Your task to perform on an android device: Search for seafood restaurants on Google Maps Image 0: 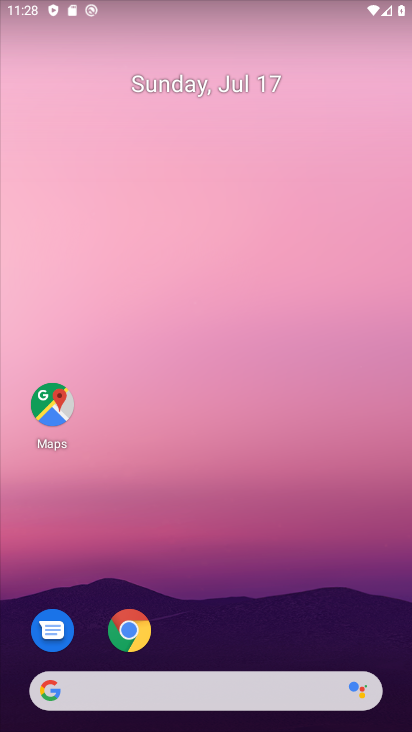
Step 0: click (24, 412)
Your task to perform on an android device: Search for seafood restaurants on Google Maps Image 1: 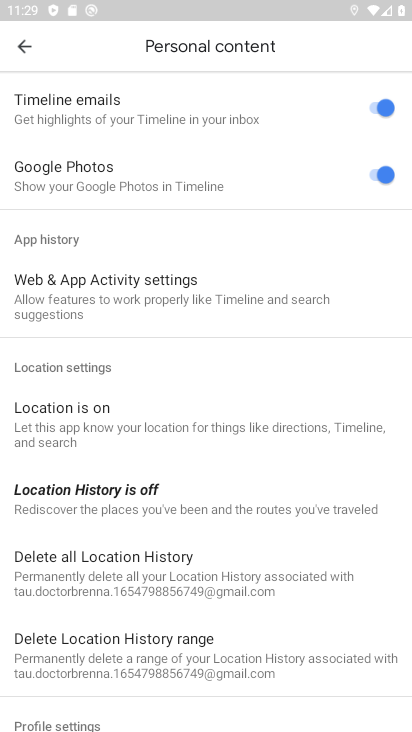
Step 1: click (21, 55)
Your task to perform on an android device: Search for seafood restaurants on Google Maps Image 2: 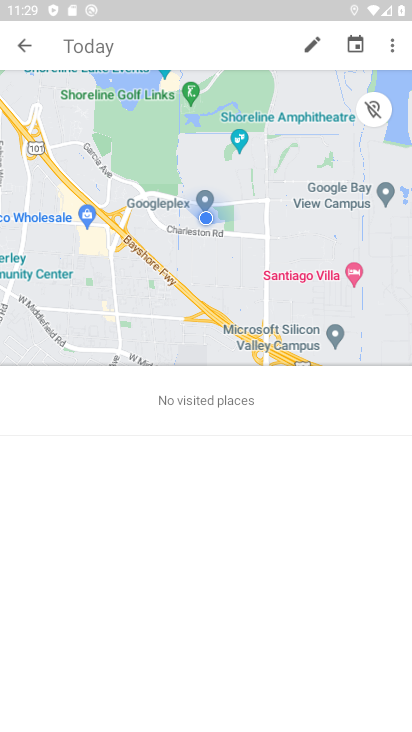
Step 2: click (30, 52)
Your task to perform on an android device: Search for seafood restaurants on Google Maps Image 3: 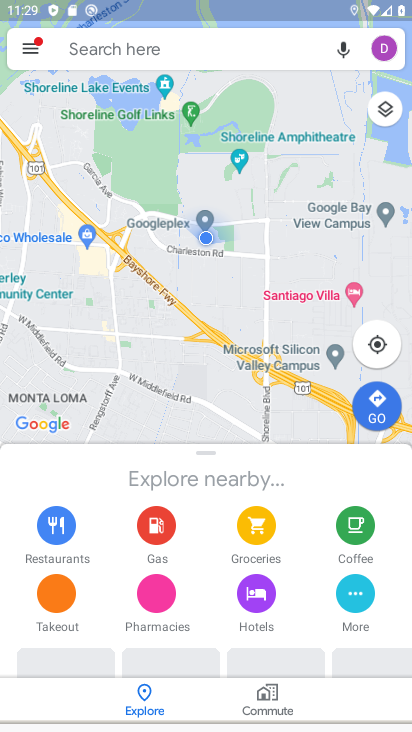
Step 3: click (151, 47)
Your task to perform on an android device: Search for seafood restaurants on Google Maps Image 4: 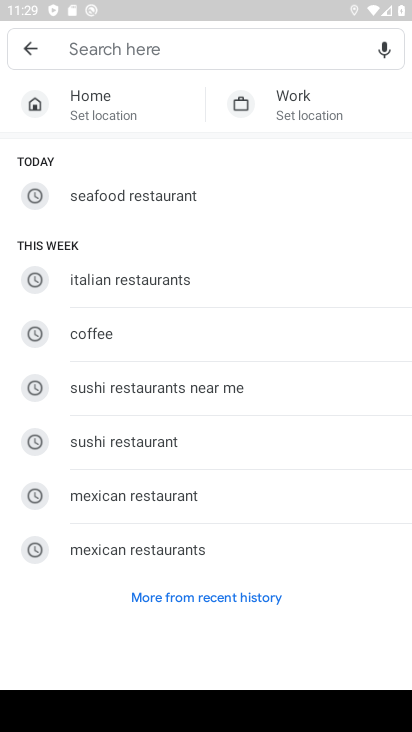
Step 4: type "seafood restaurants"
Your task to perform on an android device: Search for seafood restaurants on Google Maps Image 5: 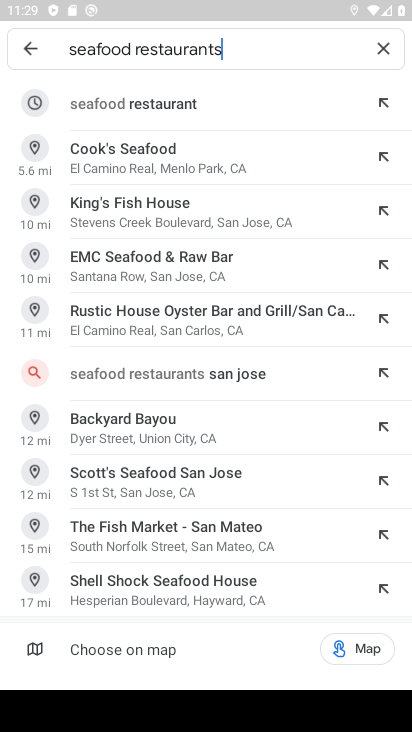
Step 5: click (184, 108)
Your task to perform on an android device: Search for seafood restaurants on Google Maps Image 6: 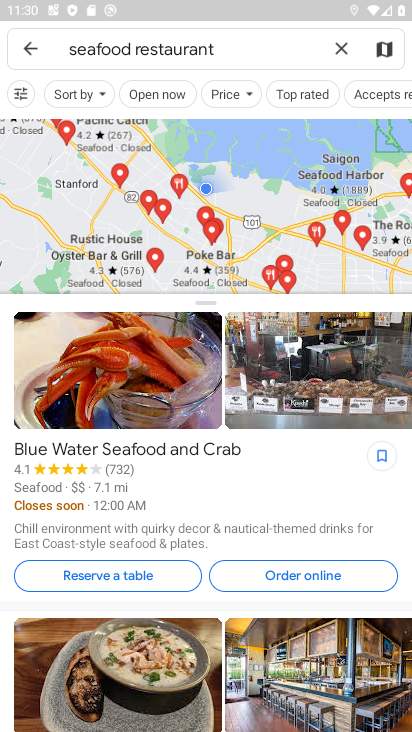
Step 6: task complete